Your task to perform on an android device: turn on translation in the chrome app Image 0: 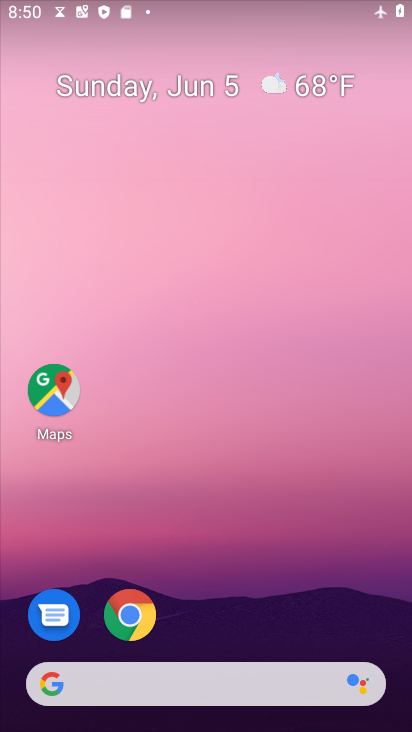
Step 0: drag from (240, 683) to (295, 25)
Your task to perform on an android device: turn on translation in the chrome app Image 1: 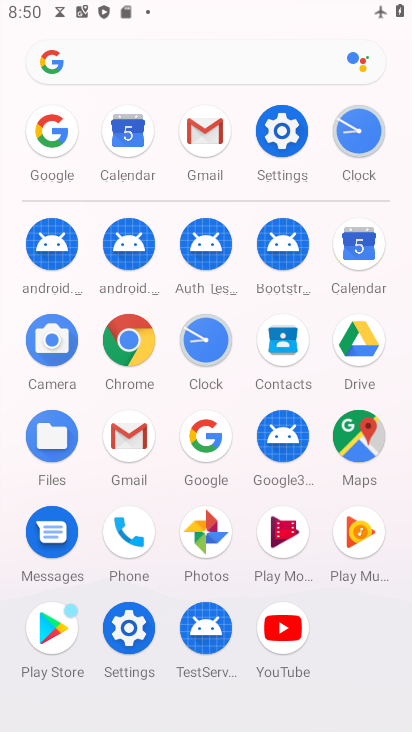
Step 1: click (125, 346)
Your task to perform on an android device: turn on translation in the chrome app Image 2: 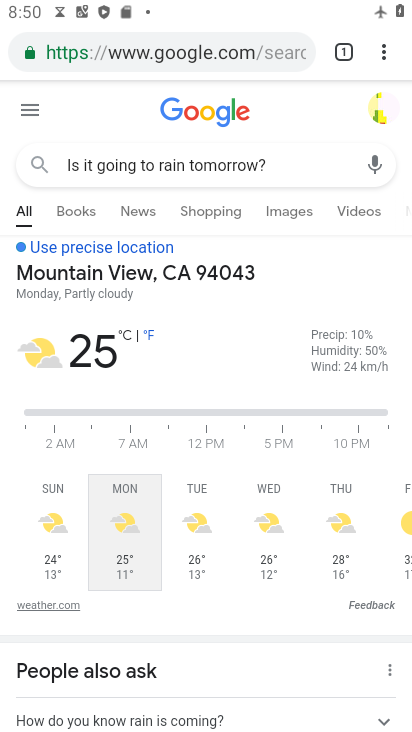
Step 2: drag from (383, 59) to (229, 577)
Your task to perform on an android device: turn on translation in the chrome app Image 3: 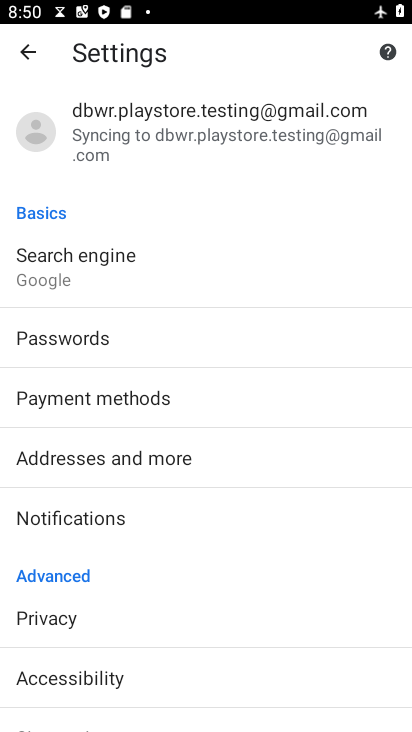
Step 3: drag from (229, 577) to (201, 16)
Your task to perform on an android device: turn on translation in the chrome app Image 4: 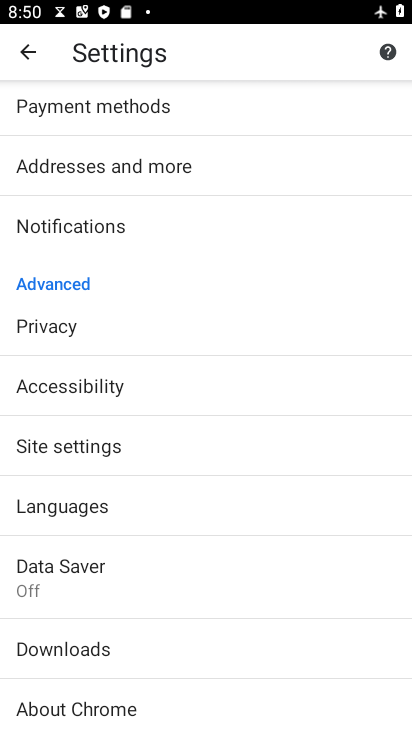
Step 4: click (65, 495)
Your task to perform on an android device: turn on translation in the chrome app Image 5: 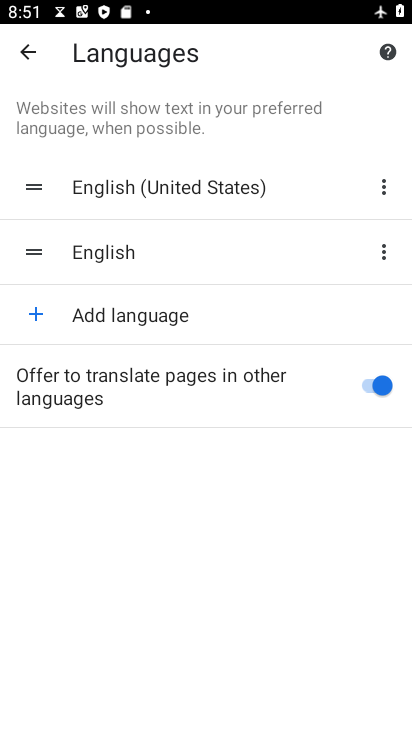
Step 5: task complete